Your task to perform on an android device: Go to Google Image 0: 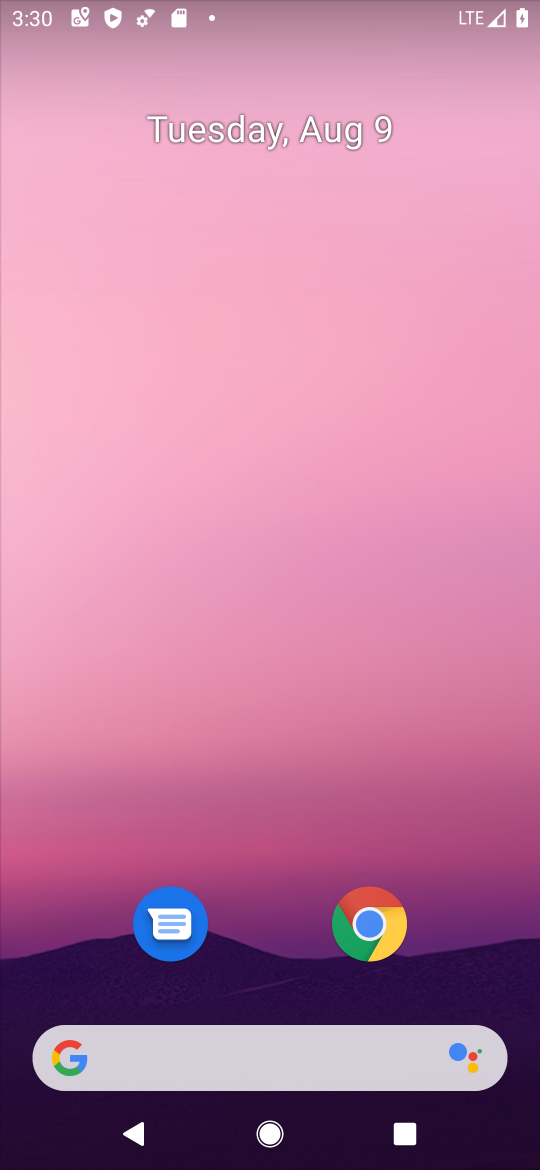
Step 0: drag from (242, 1059) to (292, 161)
Your task to perform on an android device: Go to Google Image 1: 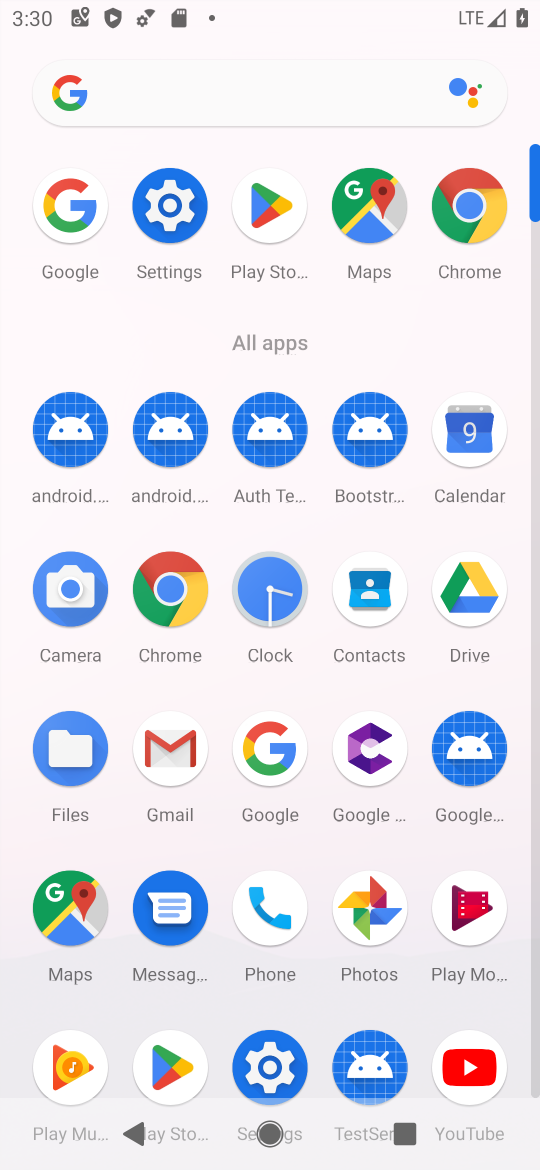
Step 1: click (68, 206)
Your task to perform on an android device: Go to Google Image 2: 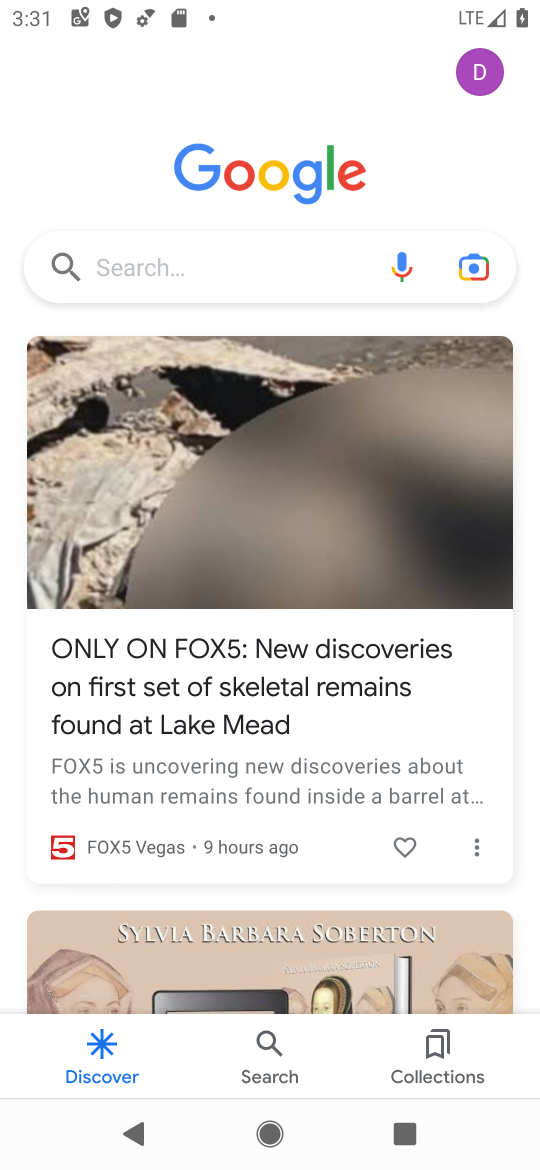
Step 2: task complete